Your task to perform on an android device: delete location history Image 0: 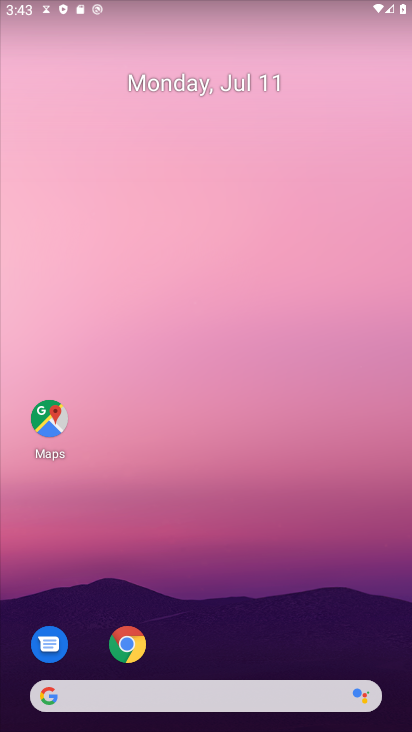
Step 0: drag from (228, 650) to (227, 89)
Your task to perform on an android device: delete location history Image 1: 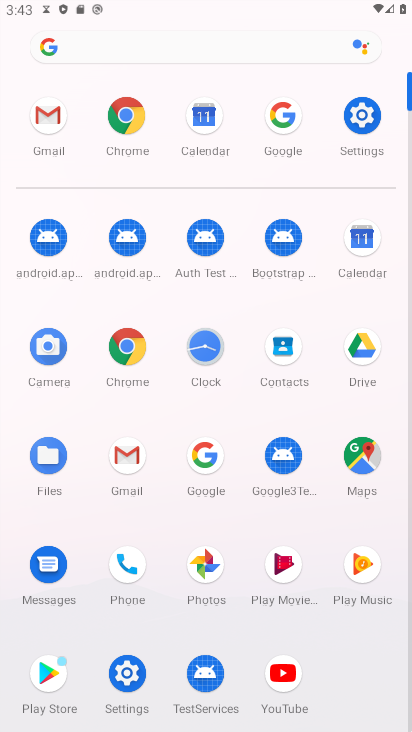
Step 1: click (360, 452)
Your task to perform on an android device: delete location history Image 2: 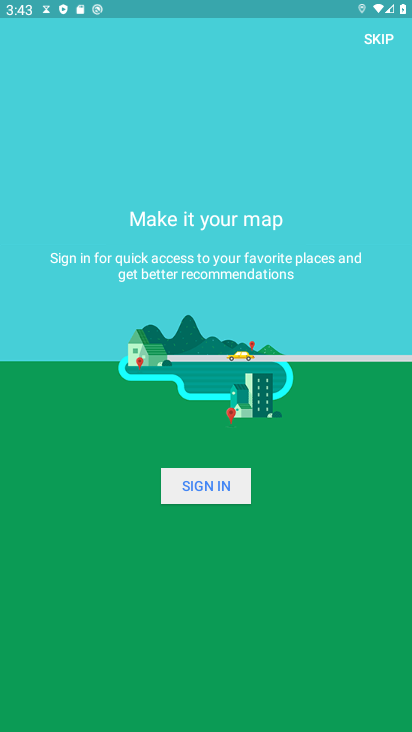
Step 2: click (381, 34)
Your task to perform on an android device: delete location history Image 3: 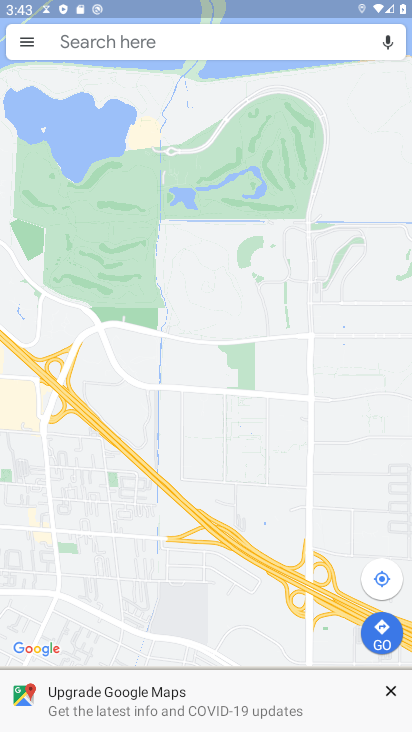
Step 3: click (26, 39)
Your task to perform on an android device: delete location history Image 4: 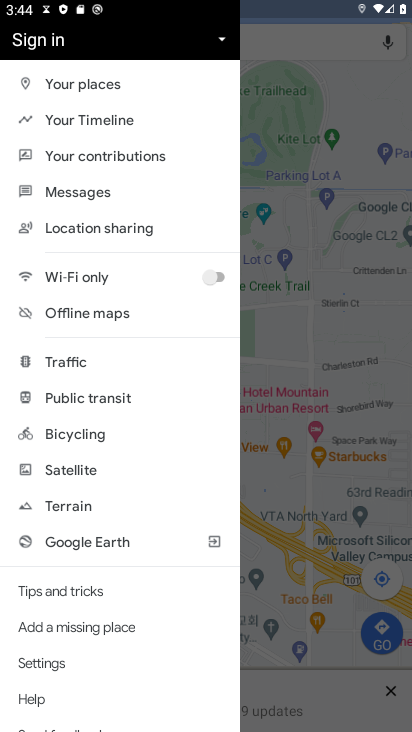
Step 4: click (79, 120)
Your task to perform on an android device: delete location history Image 5: 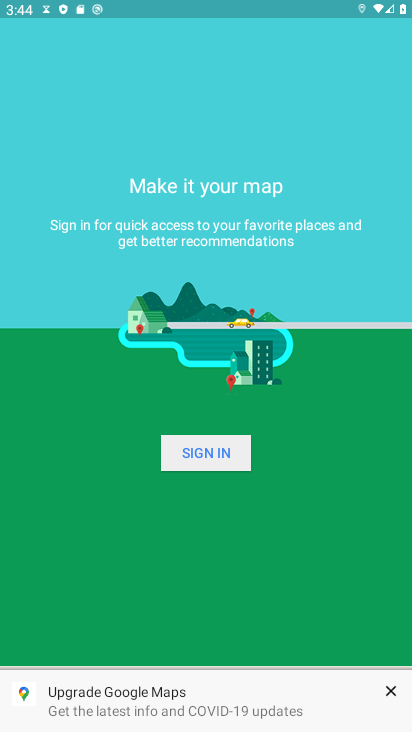
Step 5: click (392, 689)
Your task to perform on an android device: delete location history Image 6: 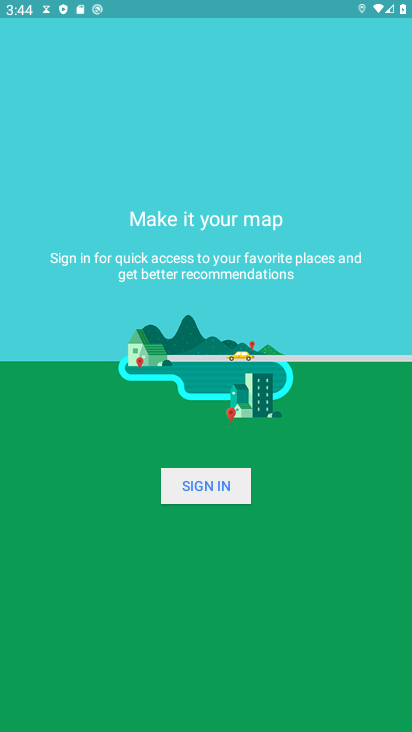
Step 6: task complete